Your task to perform on an android device: choose inbox layout in the gmail app Image 0: 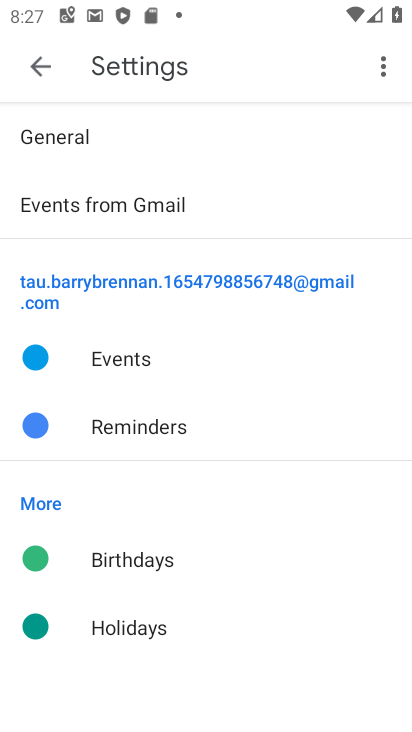
Step 0: press home button
Your task to perform on an android device: choose inbox layout in the gmail app Image 1: 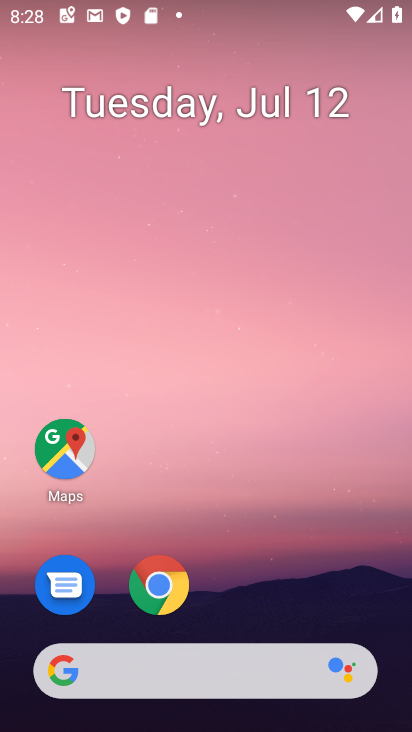
Step 1: drag from (278, 592) to (289, 45)
Your task to perform on an android device: choose inbox layout in the gmail app Image 2: 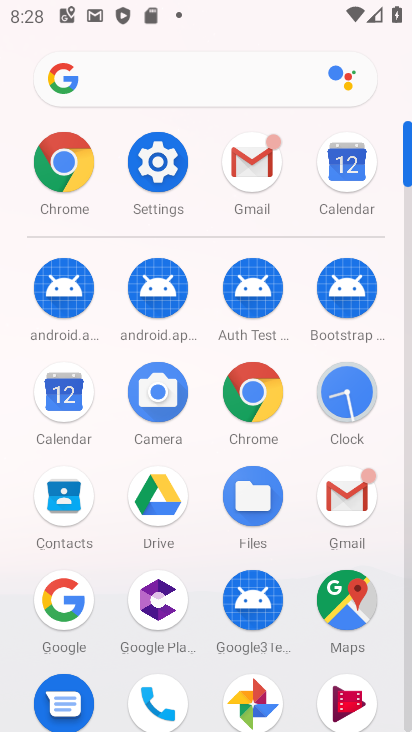
Step 2: click (250, 155)
Your task to perform on an android device: choose inbox layout in the gmail app Image 3: 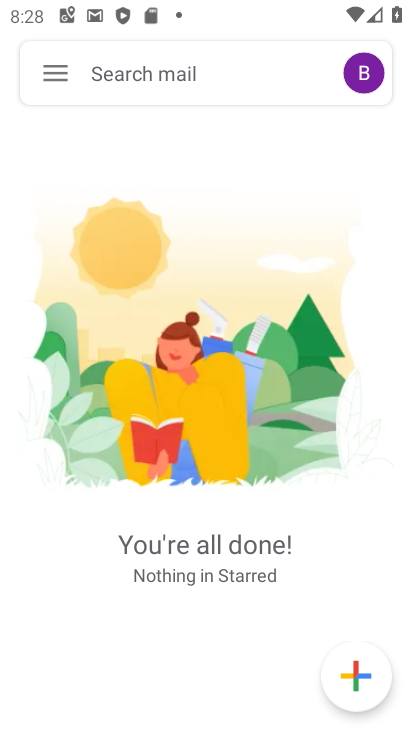
Step 3: click (56, 75)
Your task to perform on an android device: choose inbox layout in the gmail app Image 4: 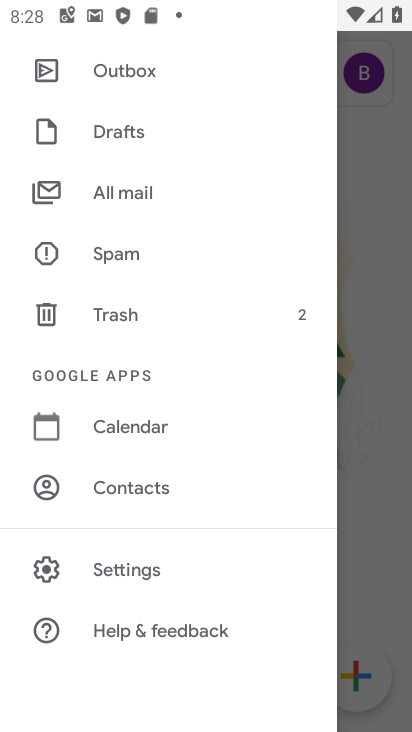
Step 4: click (132, 566)
Your task to perform on an android device: choose inbox layout in the gmail app Image 5: 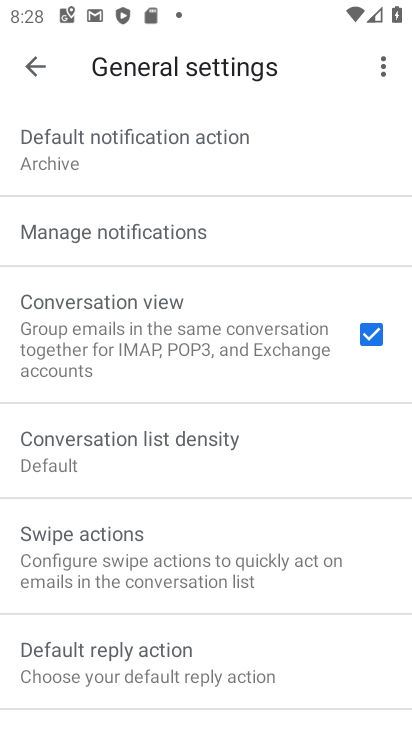
Step 5: click (44, 65)
Your task to perform on an android device: choose inbox layout in the gmail app Image 6: 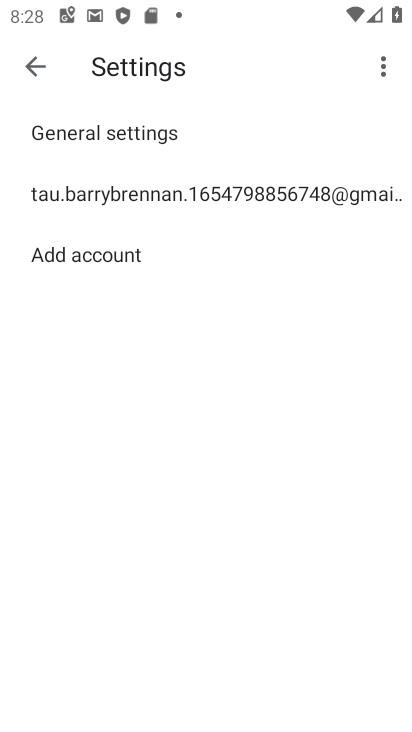
Step 6: click (137, 184)
Your task to perform on an android device: choose inbox layout in the gmail app Image 7: 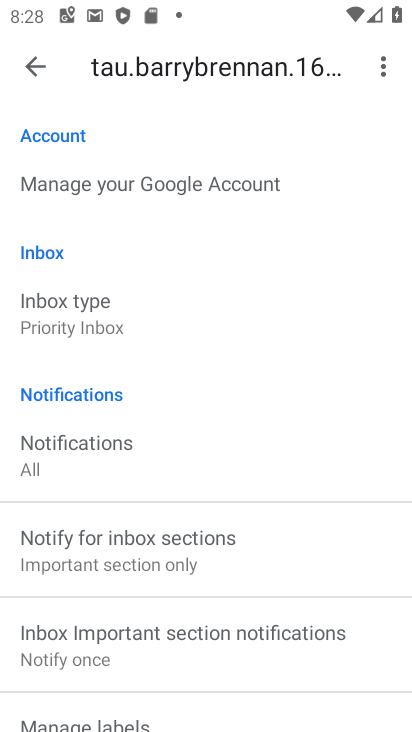
Step 7: click (61, 315)
Your task to perform on an android device: choose inbox layout in the gmail app Image 8: 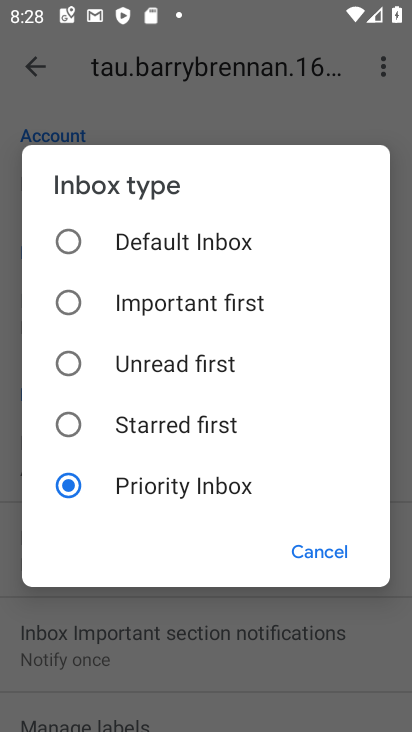
Step 8: click (63, 238)
Your task to perform on an android device: choose inbox layout in the gmail app Image 9: 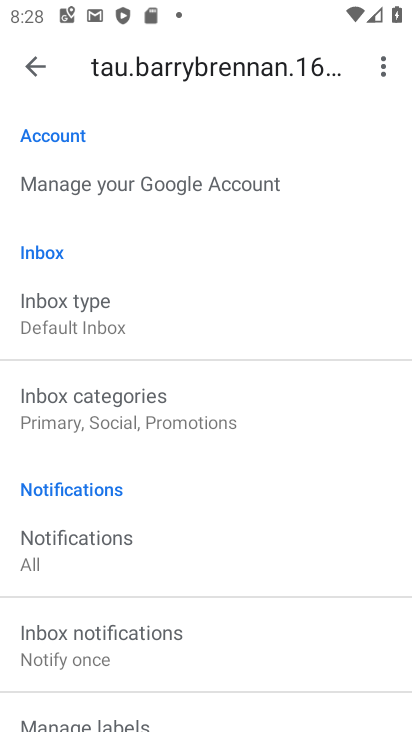
Step 9: task complete